Your task to perform on an android device: Open the calendar app, open the side menu, and click the "Day" option Image 0: 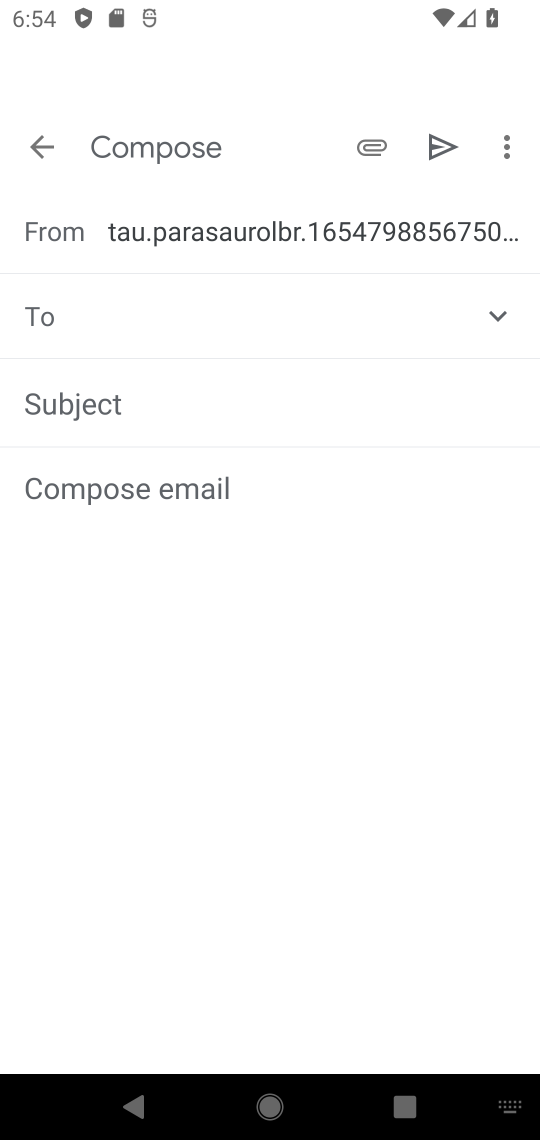
Step 0: press home button
Your task to perform on an android device: Open the calendar app, open the side menu, and click the "Day" option Image 1: 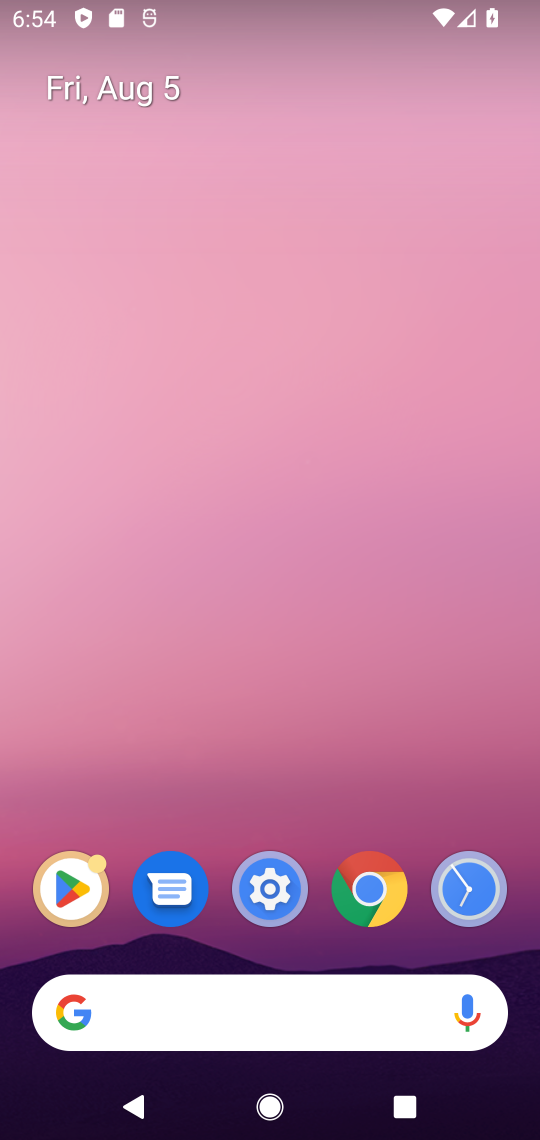
Step 1: drag from (200, 974) to (146, 356)
Your task to perform on an android device: Open the calendar app, open the side menu, and click the "Day" option Image 2: 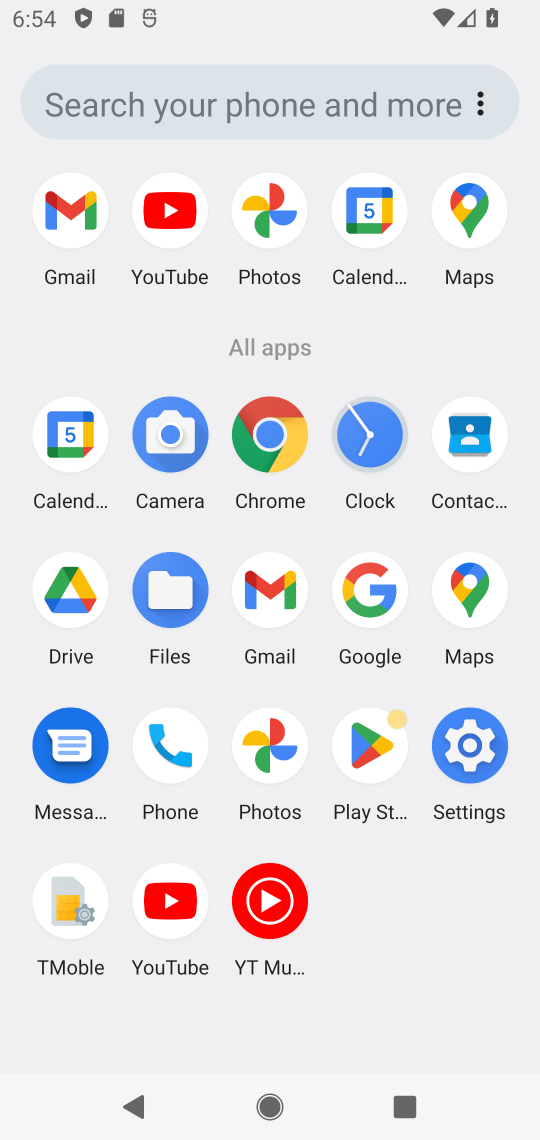
Step 2: click (373, 218)
Your task to perform on an android device: Open the calendar app, open the side menu, and click the "Day" option Image 3: 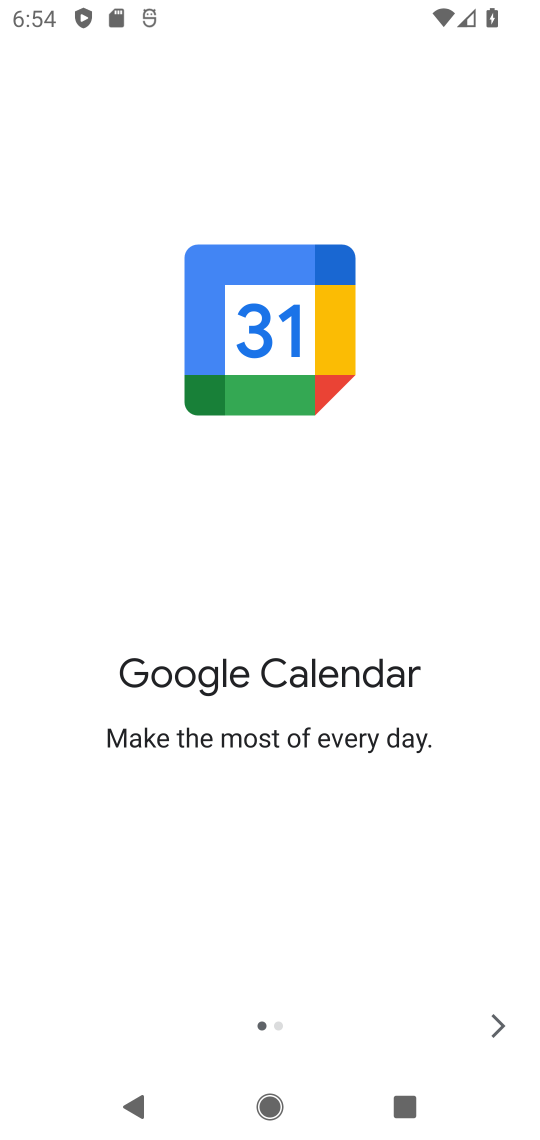
Step 3: click (507, 1027)
Your task to perform on an android device: Open the calendar app, open the side menu, and click the "Day" option Image 4: 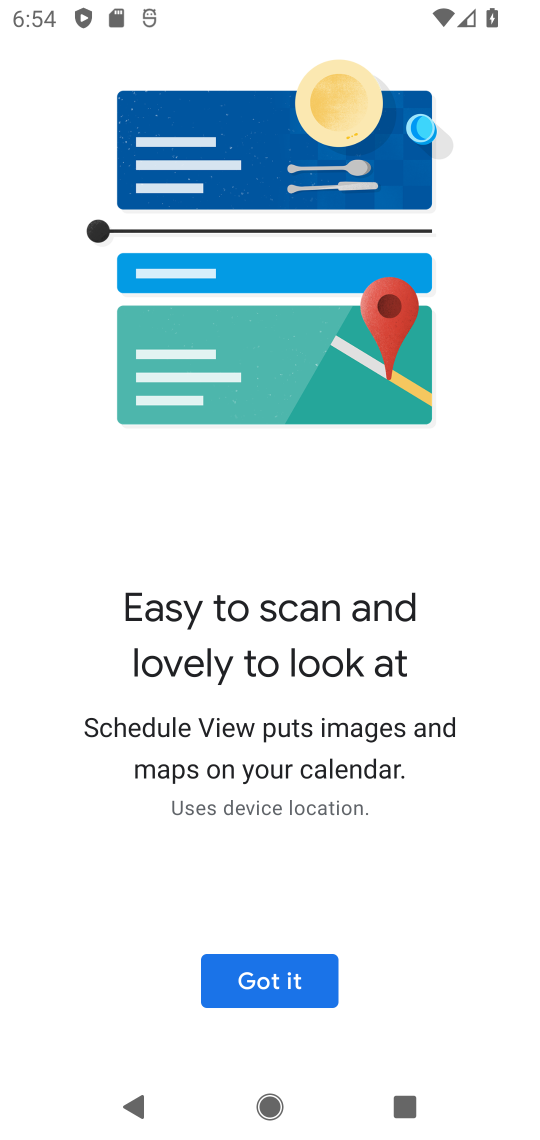
Step 4: click (267, 997)
Your task to perform on an android device: Open the calendar app, open the side menu, and click the "Day" option Image 5: 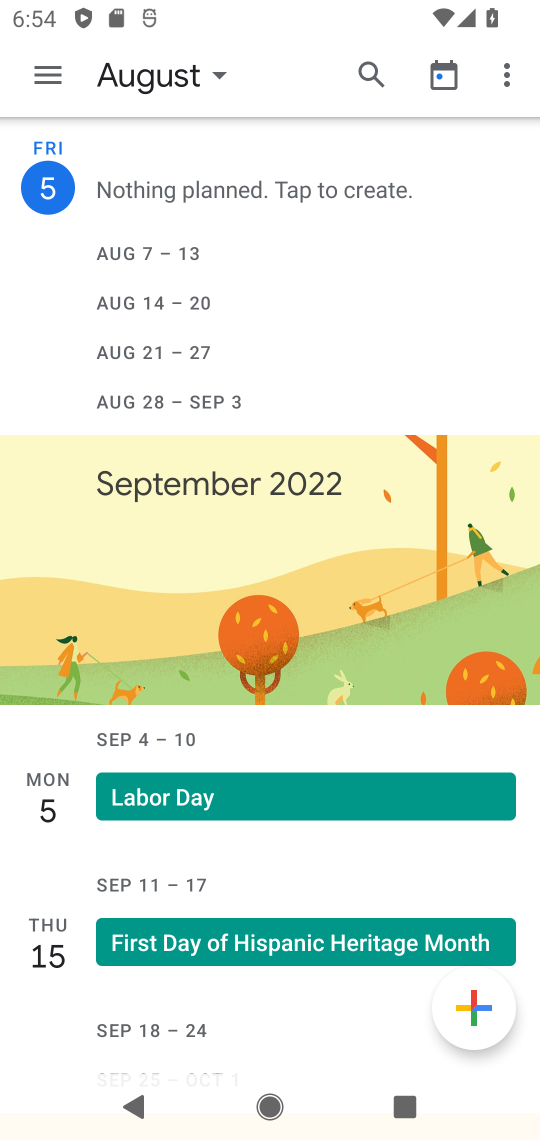
Step 5: click (54, 78)
Your task to perform on an android device: Open the calendar app, open the side menu, and click the "Day" option Image 6: 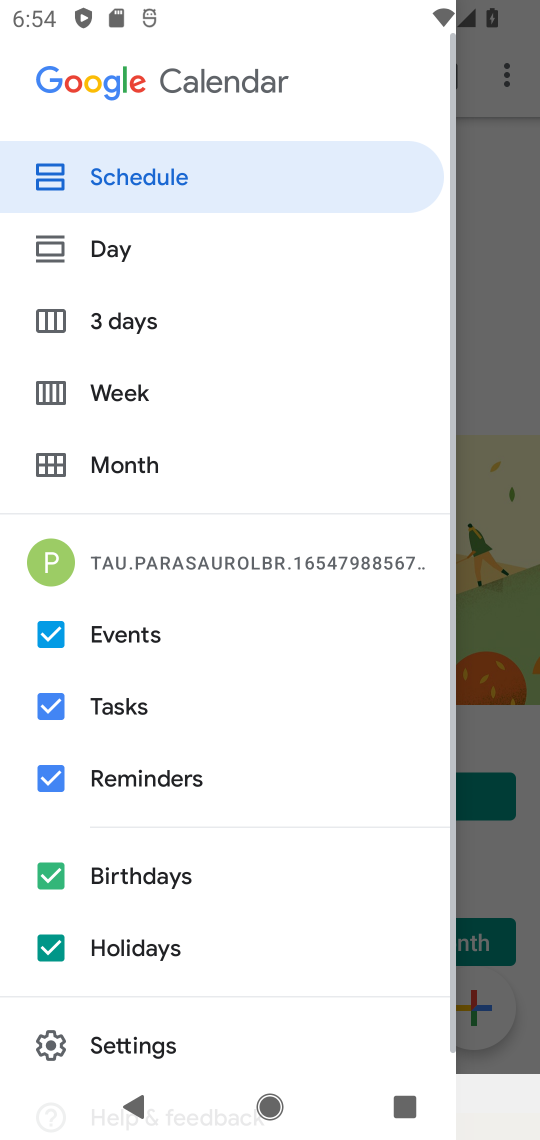
Step 6: click (107, 236)
Your task to perform on an android device: Open the calendar app, open the side menu, and click the "Day" option Image 7: 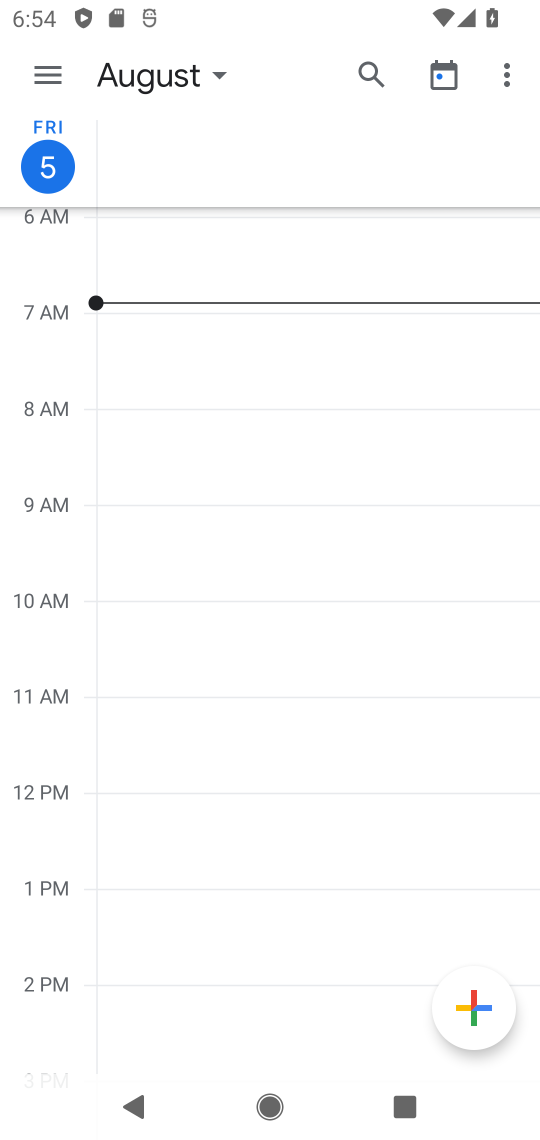
Step 7: task complete